Your task to perform on an android device: Go to notification settings Image 0: 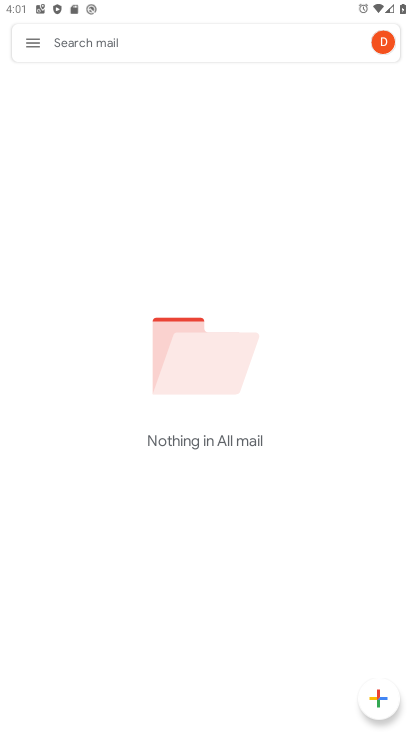
Step 0: press home button
Your task to perform on an android device: Go to notification settings Image 1: 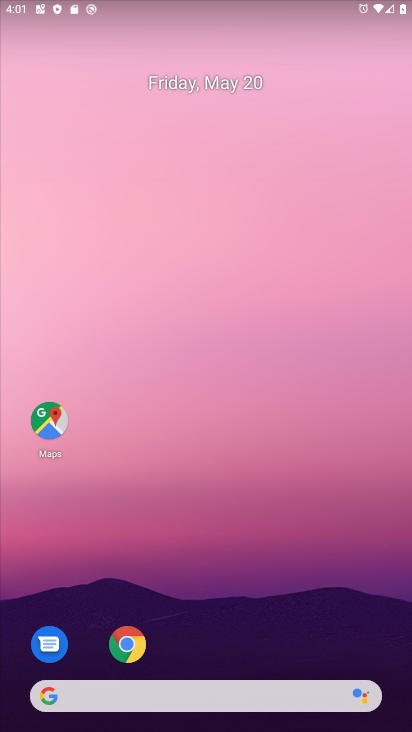
Step 1: drag from (246, 578) to (177, 126)
Your task to perform on an android device: Go to notification settings Image 2: 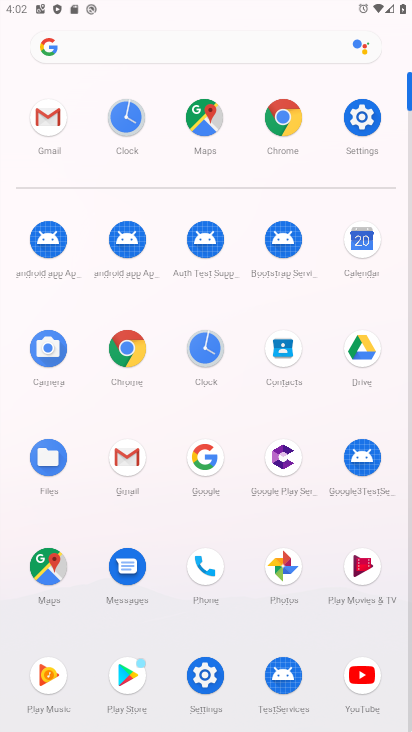
Step 2: click (357, 127)
Your task to perform on an android device: Go to notification settings Image 3: 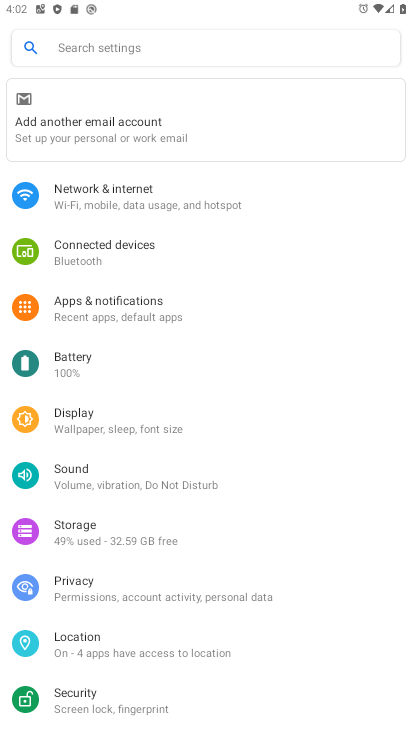
Step 3: click (122, 332)
Your task to perform on an android device: Go to notification settings Image 4: 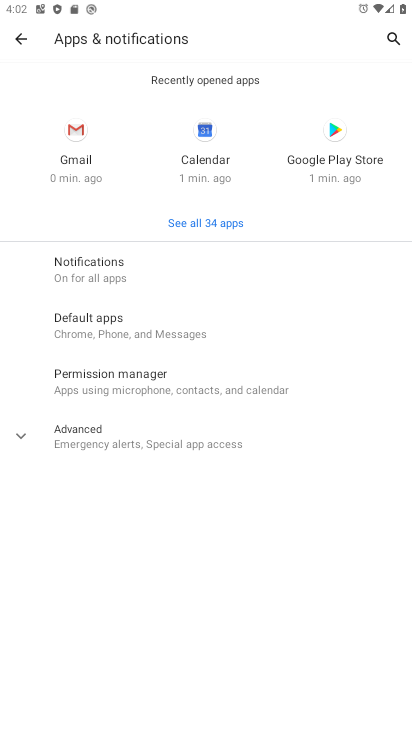
Step 4: click (179, 276)
Your task to perform on an android device: Go to notification settings Image 5: 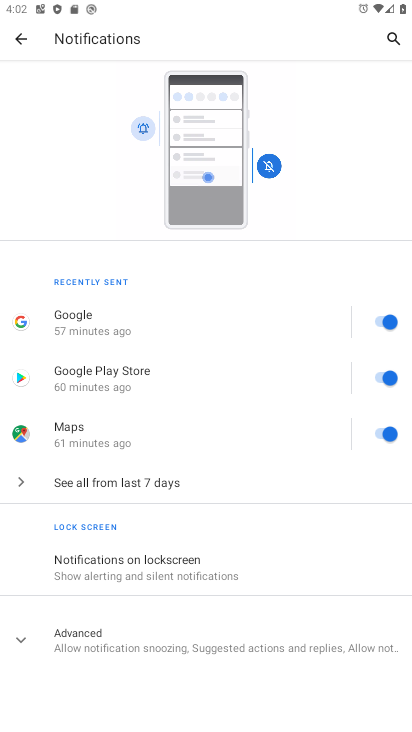
Step 5: task complete